Your task to perform on an android device: What's on my calendar today? Image 0: 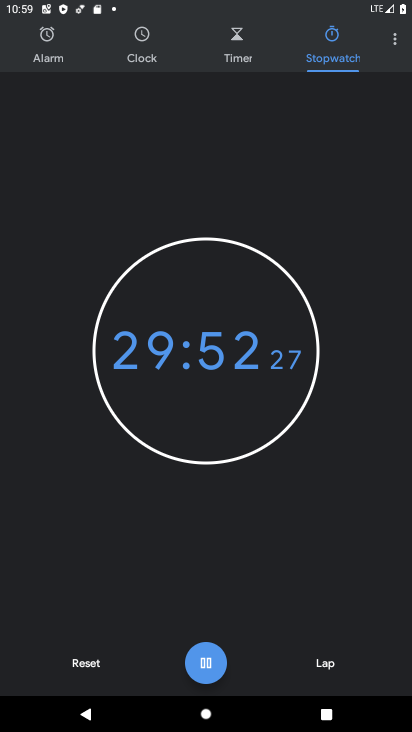
Step 0: press home button
Your task to perform on an android device: What's on my calendar today? Image 1: 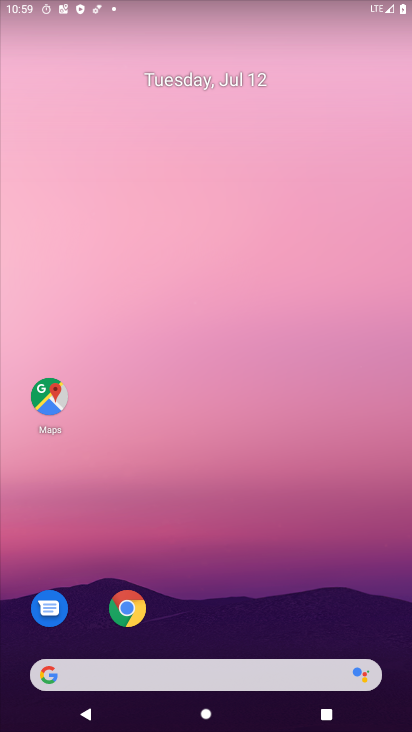
Step 1: drag from (218, 627) to (266, 79)
Your task to perform on an android device: What's on my calendar today? Image 2: 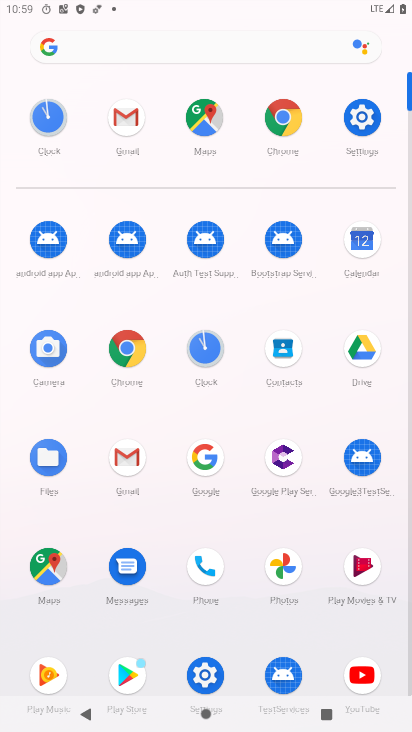
Step 2: click (363, 250)
Your task to perform on an android device: What's on my calendar today? Image 3: 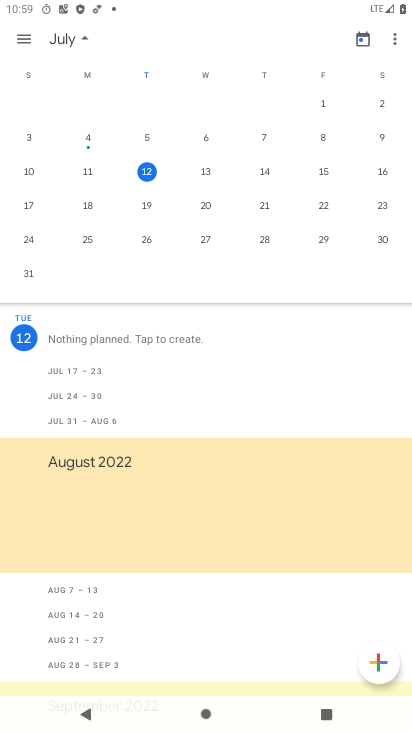
Step 3: click (146, 175)
Your task to perform on an android device: What's on my calendar today? Image 4: 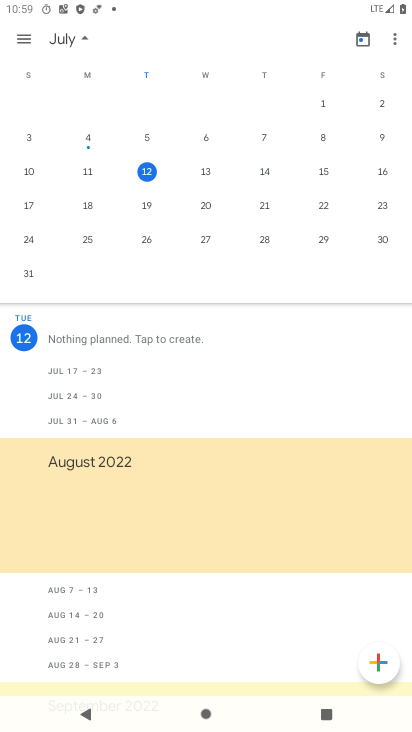
Step 4: task complete